Your task to perform on an android device: What's the weather? Image 0: 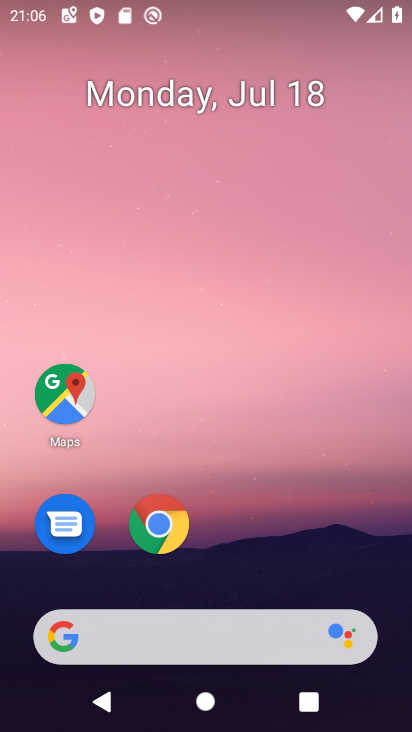
Step 0: click (169, 644)
Your task to perform on an android device: What's the weather? Image 1: 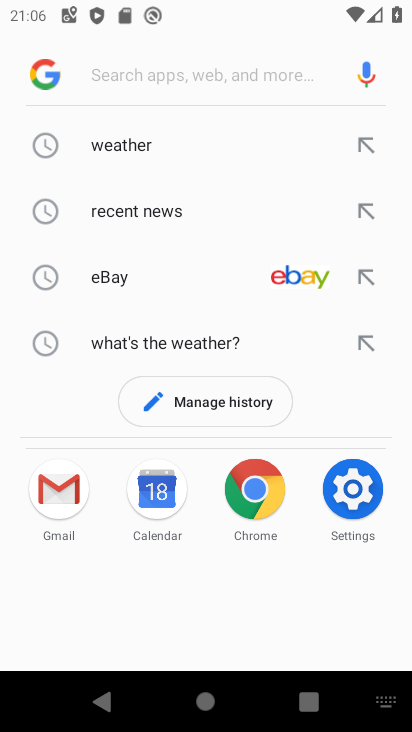
Step 1: click (107, 138)
Your task to perform on an android device: What's the weather? Image 2: 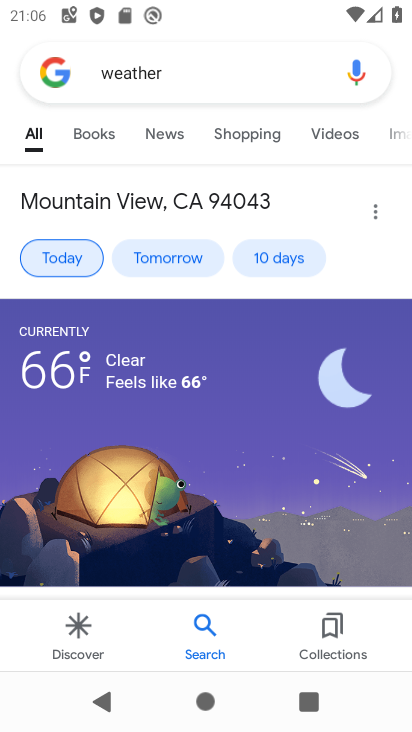
Step 2: click (68, 248)
Your task to perform on an android device: What's the weather? Image 3: 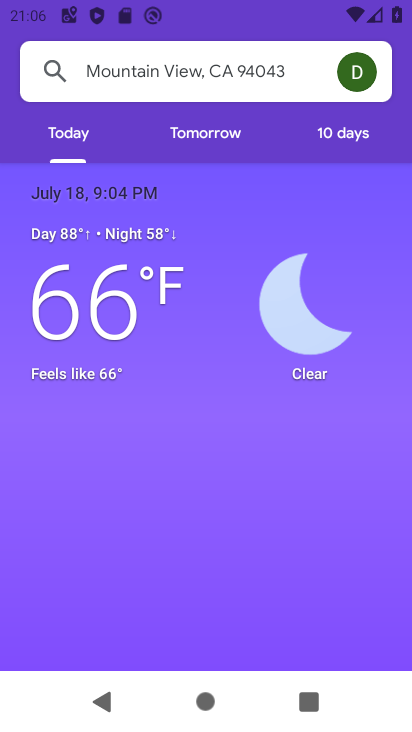
Step 3: task complete